Your task to perform on an android device: Find coffee shops on Maps Image 0: 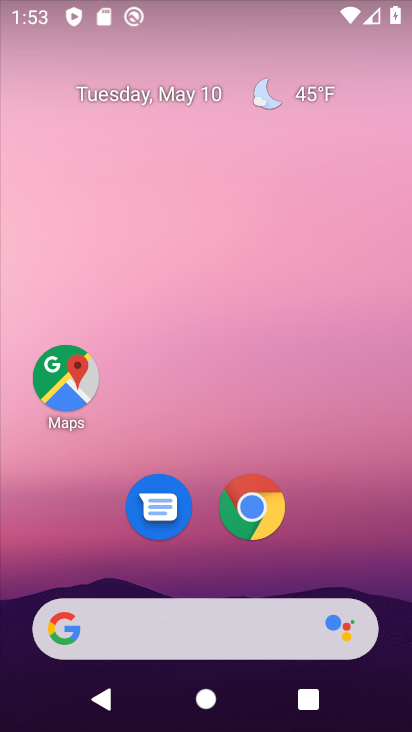
Step 0: click (63, 382)
Your task to perform on an android device: Find coffee shops on Maps Image 1: 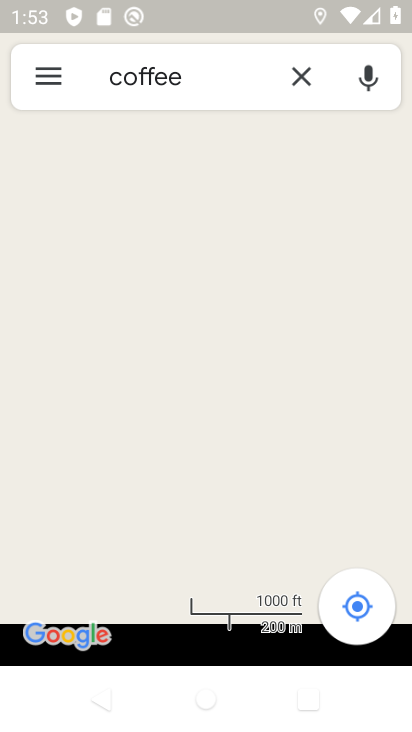
Step 1: click (192, 77)
Your task to perform on an android device: Find coffee shops on Maps Image 2: 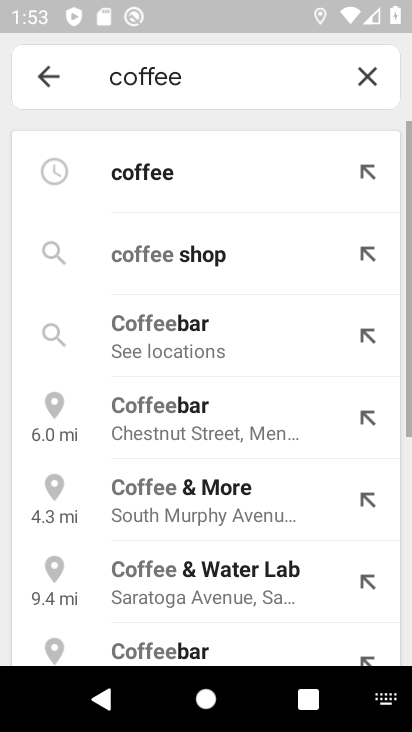
Step 2: click (143, 151)
Your task to perform on an android device: Find coffee shops on Maps Image 3: 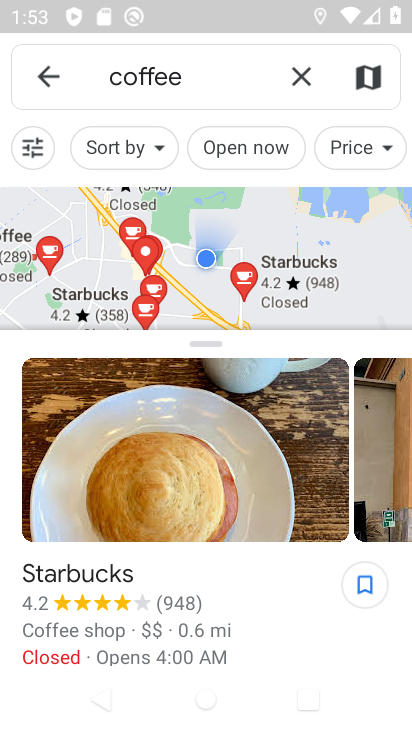
Step 3: task complete